Your task to perform on an android device: delete location history Image 0: 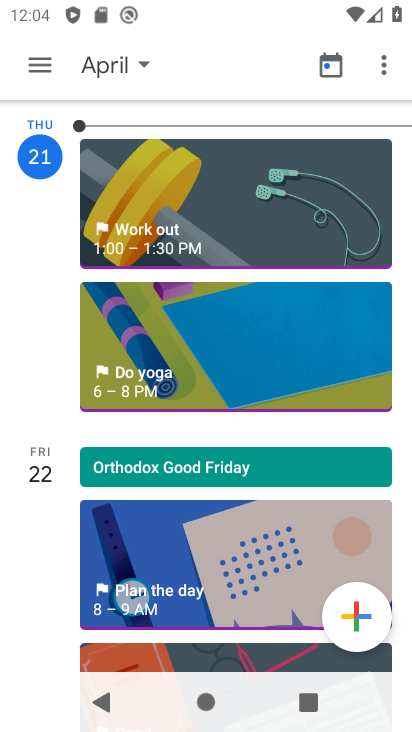
Step 0: press home button
Your task to perform on an android device: delete location history Image 1: 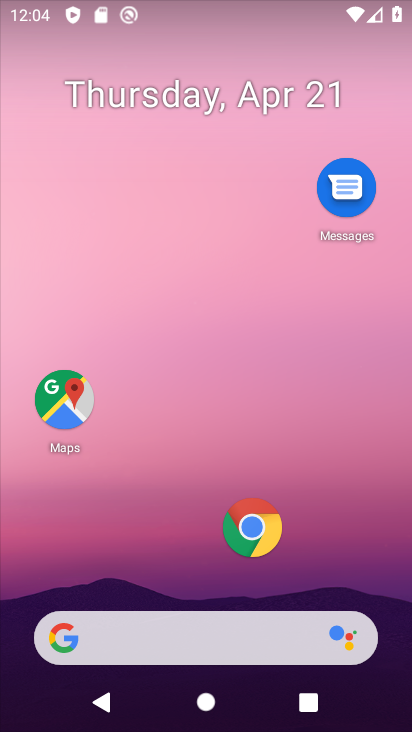
Step 1: drag from (288, 565) to (265, 99)
Your task to perform on an android device: delete location history Image 2: 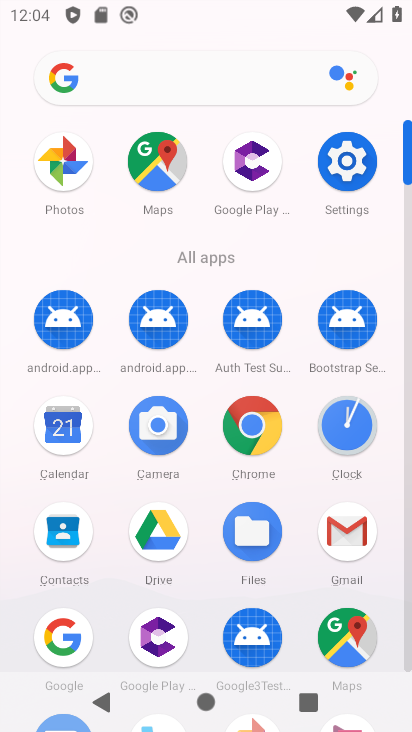
Step 2: click (338, 621)
Your task to perform on an android device: delete location history Image 3: 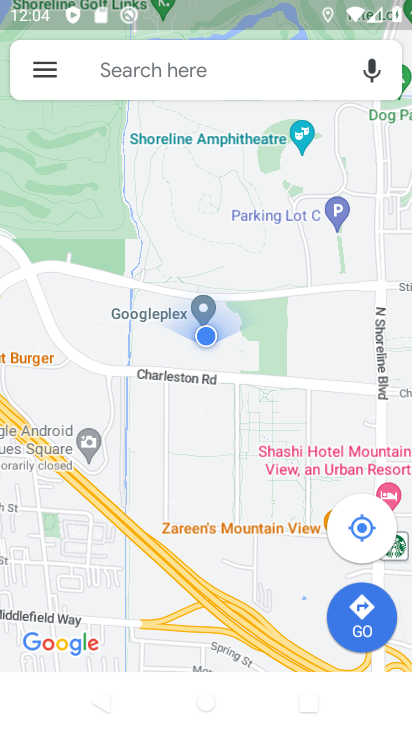
Step 3: click (32, 76)
Your task to perform on an android device: delete location history Image 4: 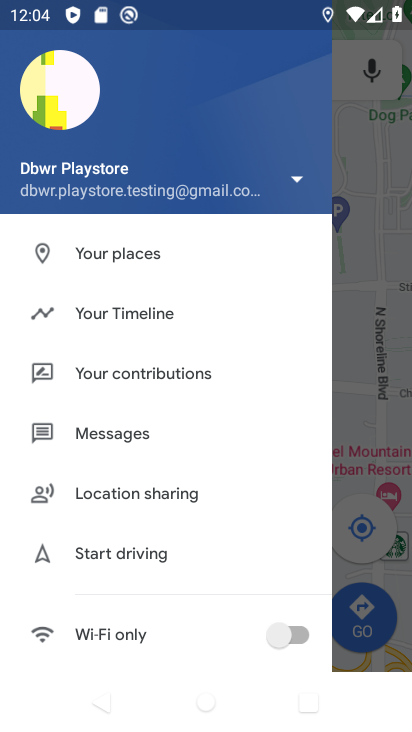
Step 4: click (112, 302)
Your task to perform on an android device: delete location history Image 5: 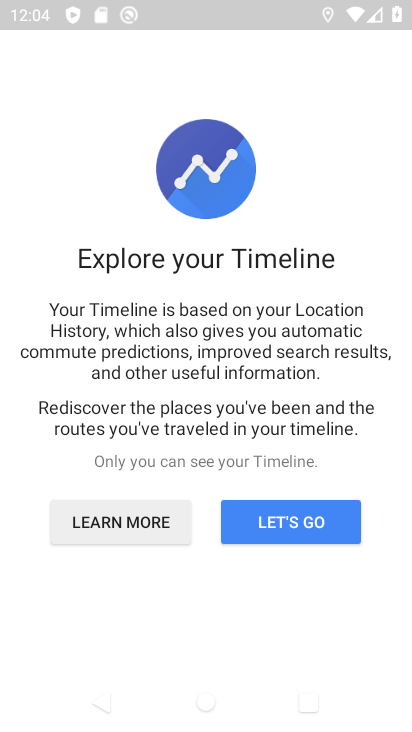
Step 5: click (304, 509)
Your task to perform on an android device: delete location history Image 6: 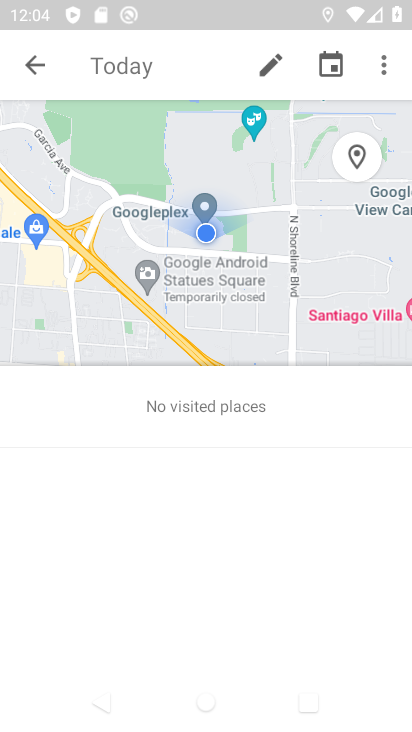
Step 6: click (383, 68)
Your task to perform on an android device: delete location history Image 7: 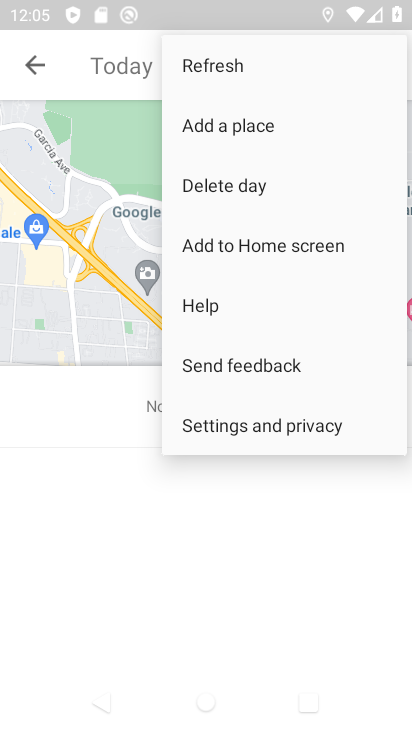
Step 7: click (305, 432)
Your task to perform on an android device: delete location history Image 8: 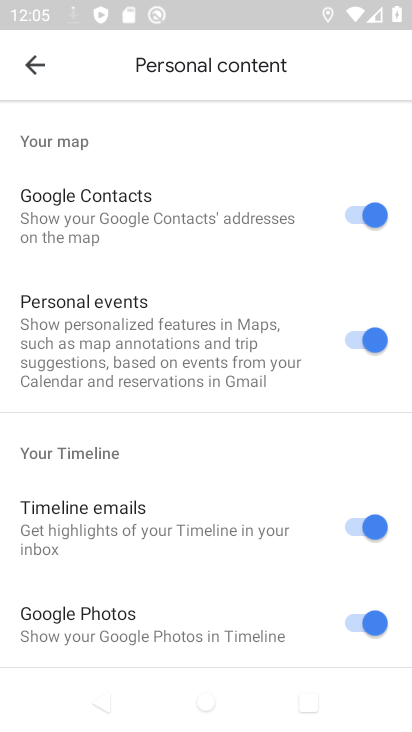
Step 8: drag from (153, 619) to (143, 212)
Your task to perform on an android device: delete location history Image 9: 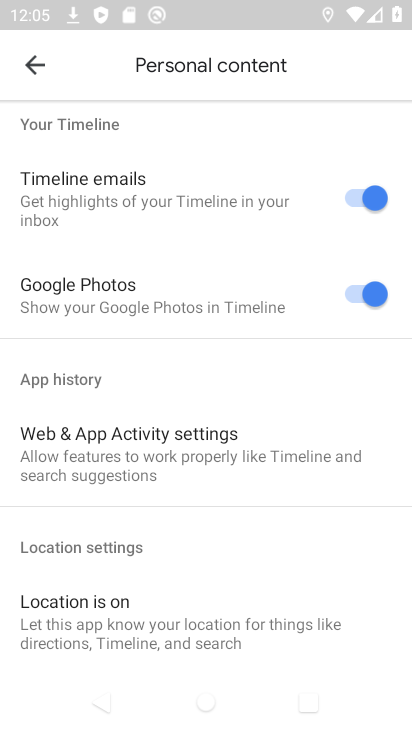
Step 9: drag from (118, 598) to (113, 250)
Your task to perform on an android device: delete location history Image 10: 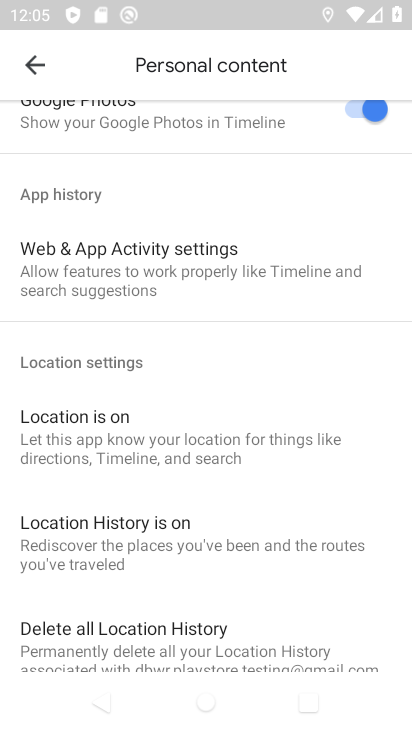
Step 10: drag from (143, 584) to (147, 417)
Your task to perform on an android device: delete location history Image 11: 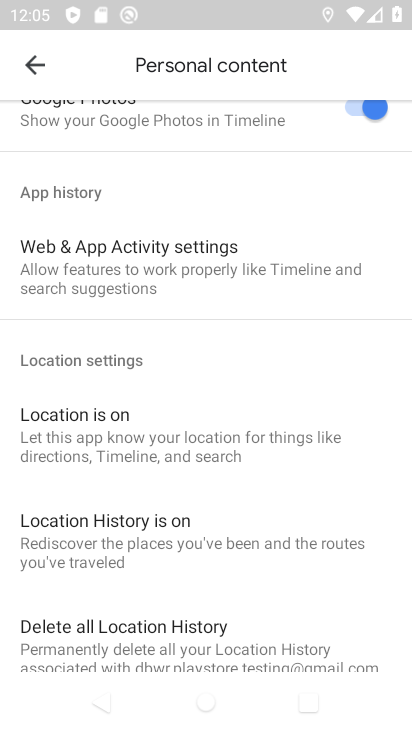
Step 11: click (120, 637)
Your task to perform on an android device: delete location history Image 12: 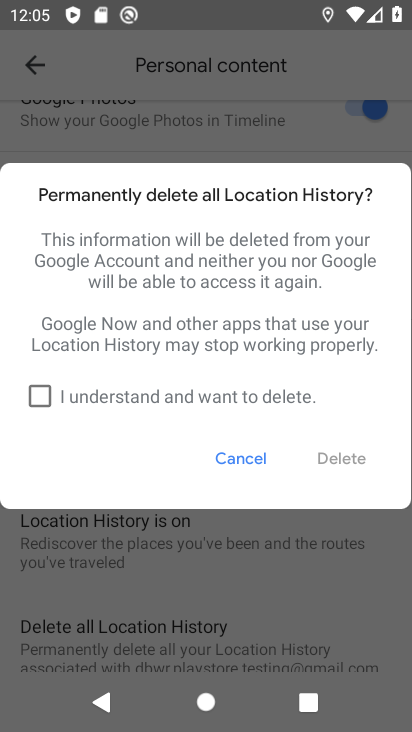
Step 12: click (77, 408)
Your task to perform on an android device: delete location history Image 13: 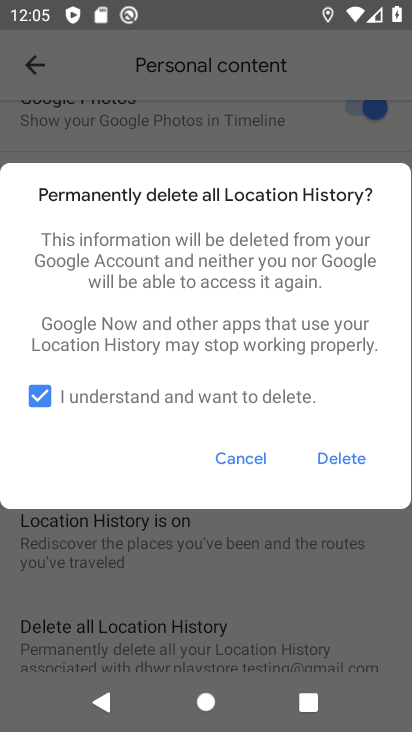
Step 13: click (341, 463)
Your task to perform on an android device: delete location history Image 14: 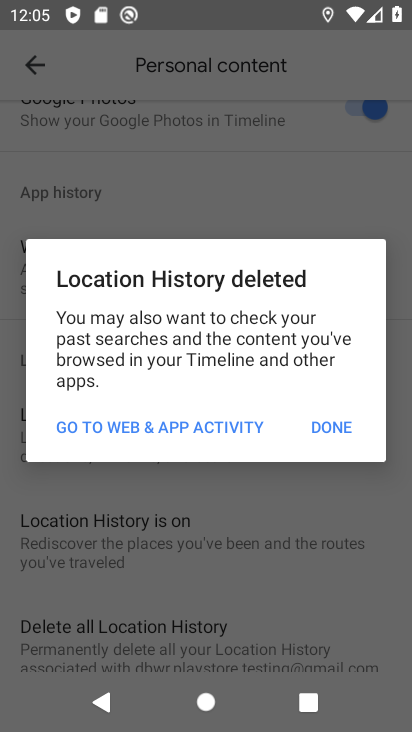
Step 14: click (333, 428)
Your task to perform on an android device: delete location history Image 15: 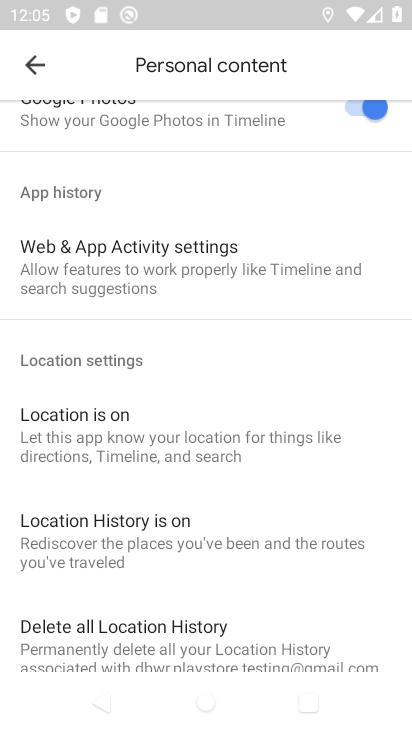
Step 15: task complete